Your task to perform on an android device: turn off location history Image 0: 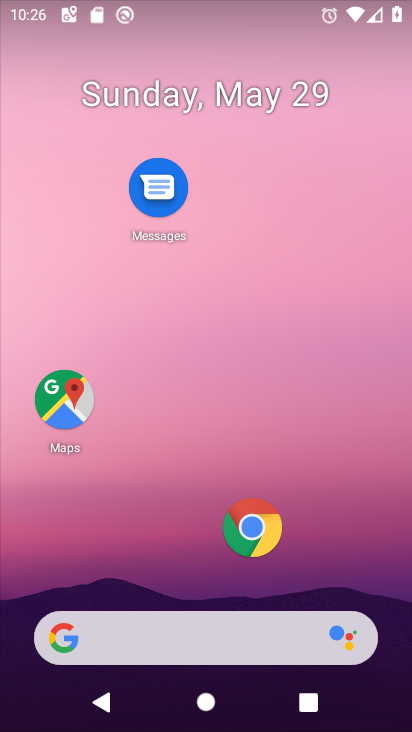
Step 0: press home button
Your task to perform on an android device: turn off location history Image 1: 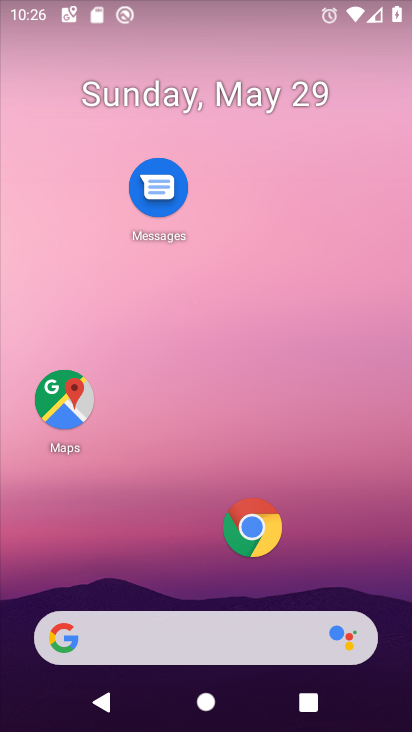
Step 1: drag from (219, 589) to (212, 93)
Your task to perform on an android device: turn off location history Image 2: 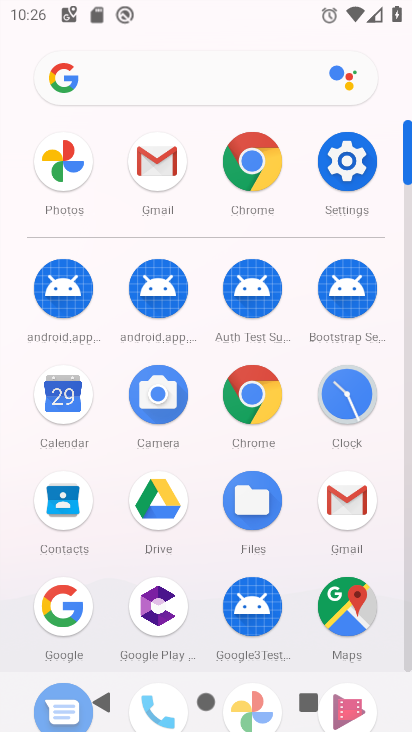
Step 2: click (354, 157)
Your task to perform on an android device: turn off location history Image 3: 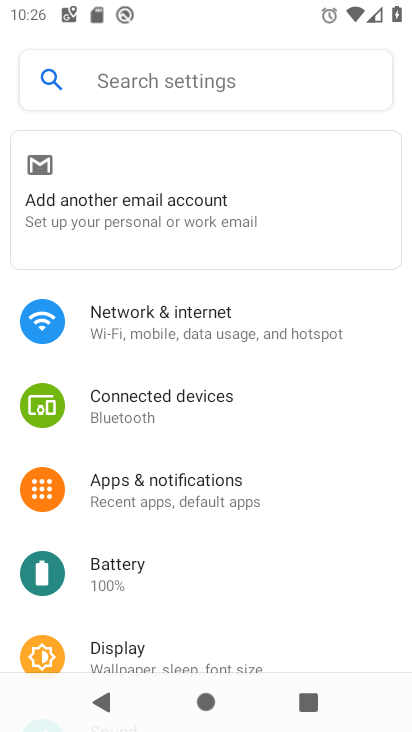
Step 3: drag from (183, 635) to (208, 66)
Your task to perform on an android device: turn off location history Image 4: 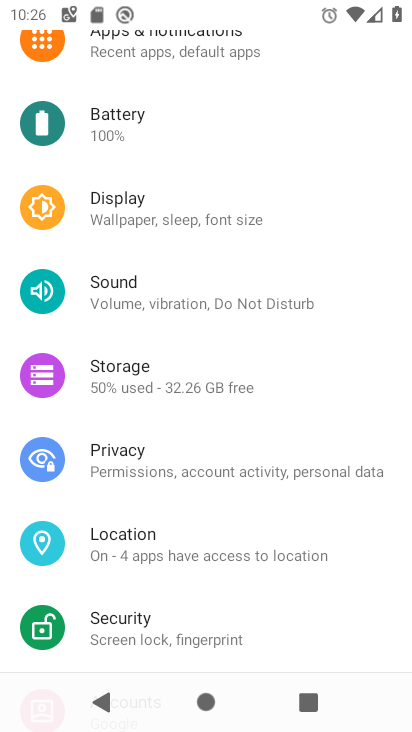
Step 4: click (177, 541)
Your task to perform on an android device: turn off location history Image 5: 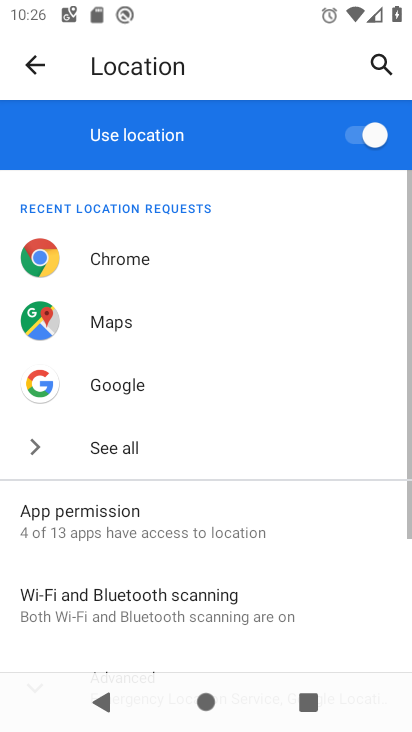
Step 5: drag from (195, 616) to (211, 151)
Your task to perform on an android device: turn off location history Image 6: 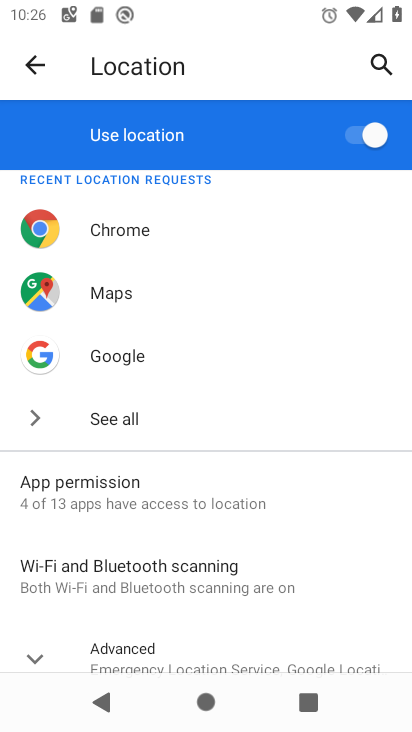
Step 6: click (124, 646)
Your task to perform on an android device: turn off location history Image 7: 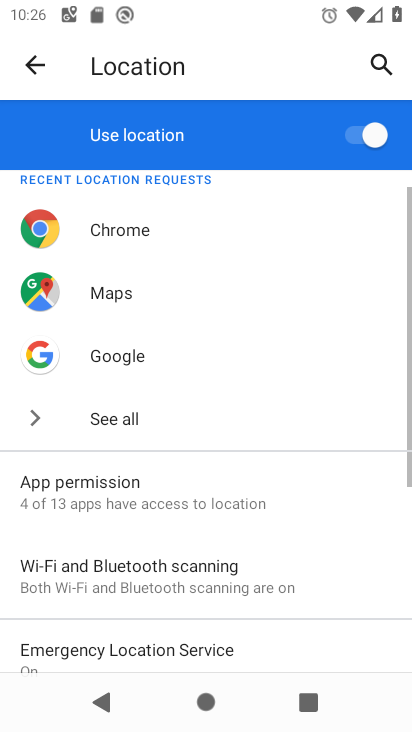
Step 7: drag from (227, 630) to (225, 139)
Your task to perform on an android device: turn off location history Image 8: 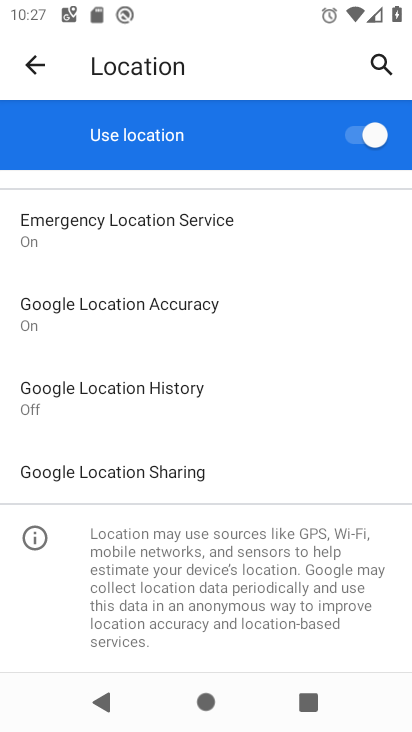
Step 8: click (142, 394)
Your task to perform on an android device: turn off location history Image 9: 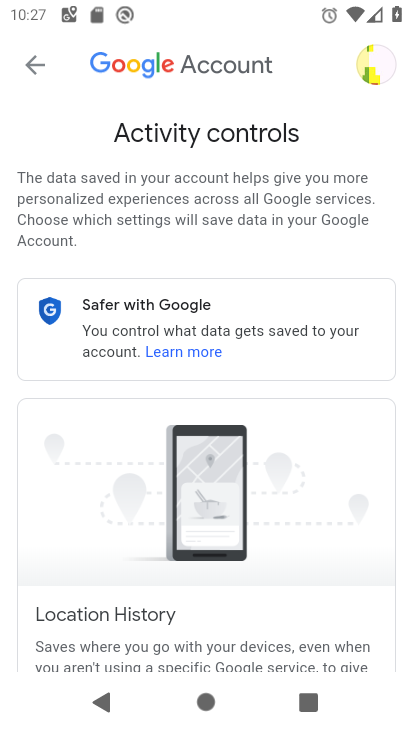
Step 9: task complete